Your task to perform on an android device: Search for Mexican restaurants on Maps Image 0: 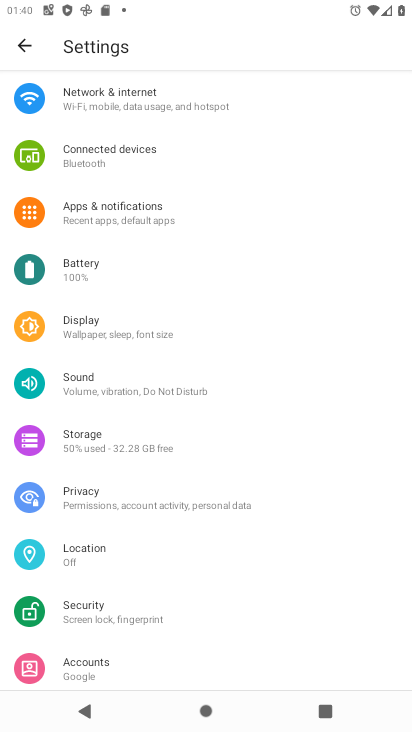
Step 0: press home button
Your task to perform on an android device: Search for Mexican restaurants on Maps Image 1: 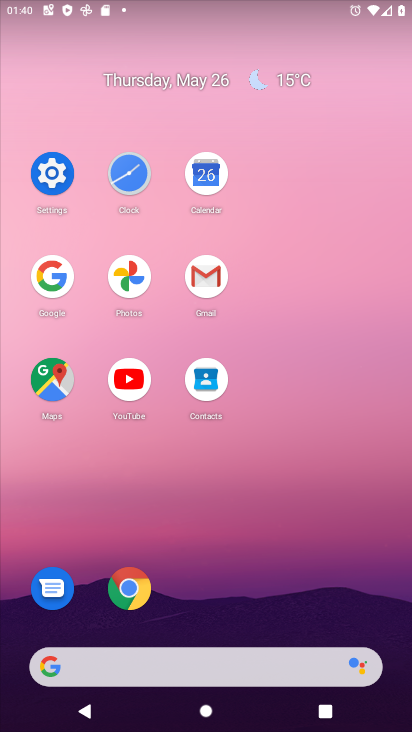
Step 1: click (62, 372)
Your task to perform on an android device: Search for Mexican restaurants on Maps Image 2: 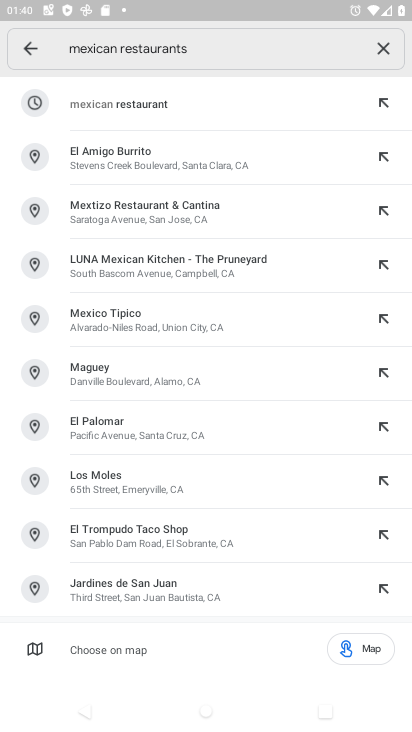
Step 2: task complete